Your task to perform on an android device: change the clock display to show seconds Image 0: 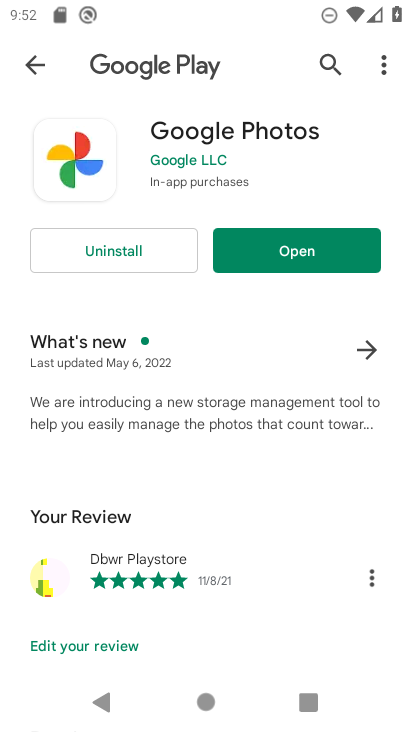
Step 0: press home button
Your task to perform on an android device: change the clock display to show seconds Image 1: 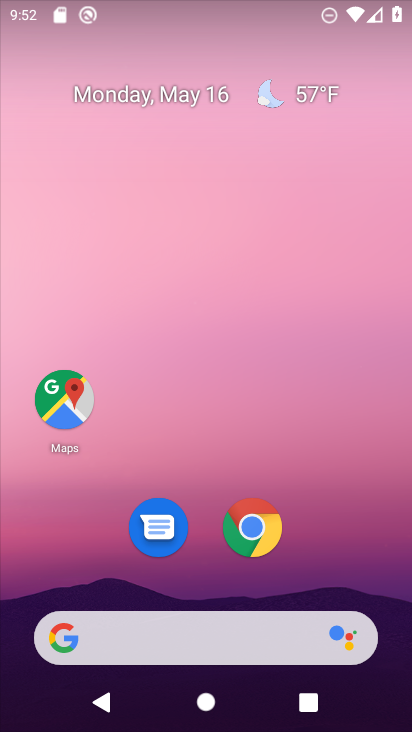
Step 1: drag from (396, 636) to (360, 258)
Your task to perform on an android device: change the clock display to show seconds Image 2: 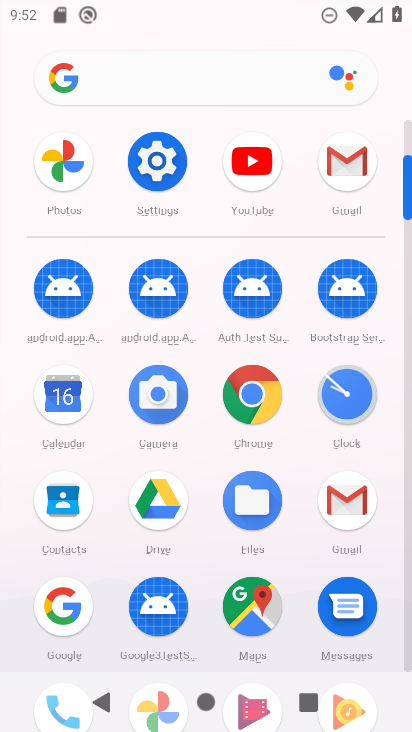
Step 2: drag from (407, 166) to (409, 130)
Your task to perform on an android device: change the clock display to show seconds Image 3: 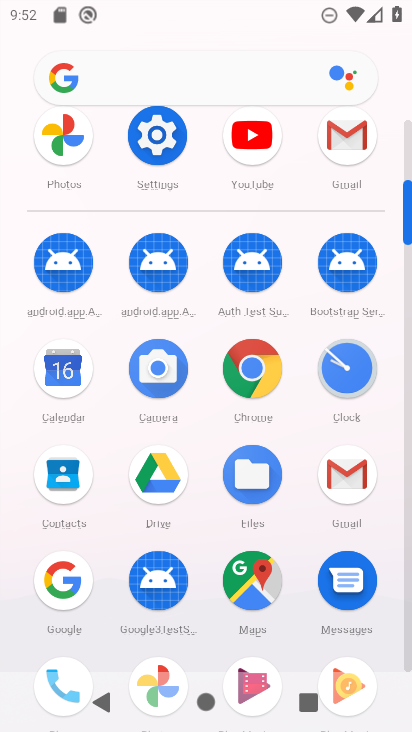
Step 3: click (342, 367)
Your task to perform on an android device: change the clock display to show seconds Image 4: 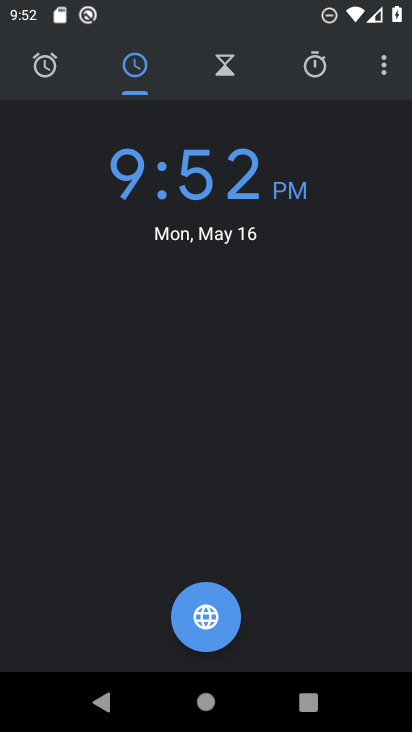
Step 4: click (386, 62)
Your task to perform on an android device: change the clock display to show seconds Image 5: 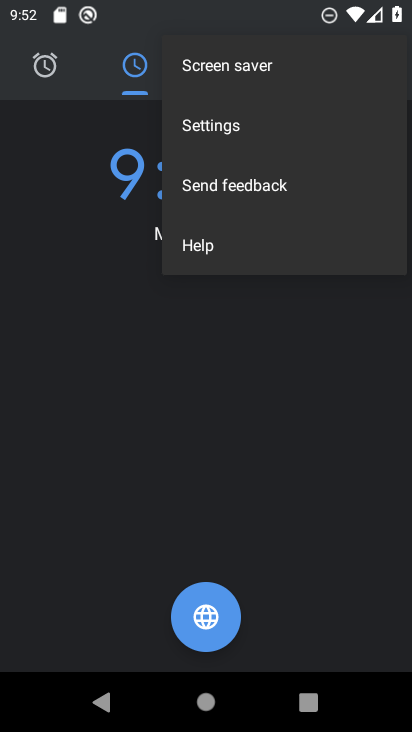
Step 5: click (206, 126)
Your task to perform on an android device: change the clock display to show seconds Image 6: 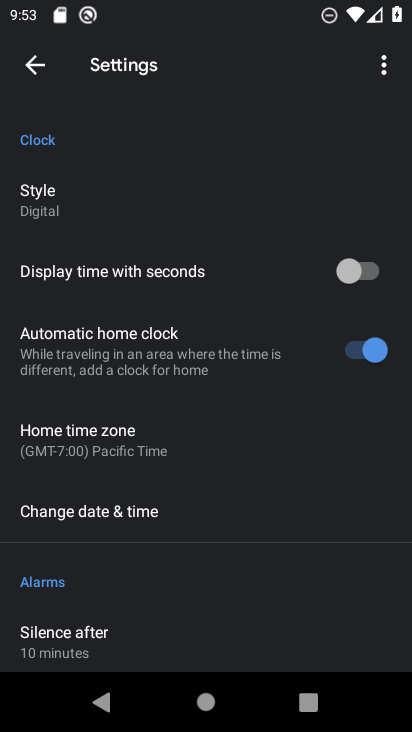
Step 6: click (370, 271)
Your task to perform on an android device: change the clock display to show seconds Image 7: 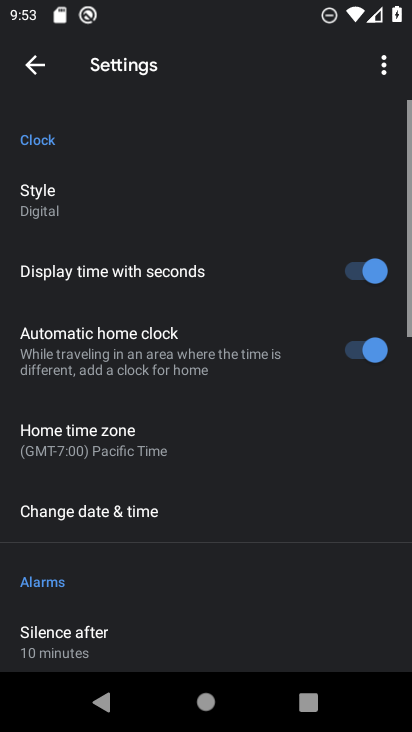
Step 7: task complete